Your task to perform on an android device: turn on translation in the chrome app Image 0: 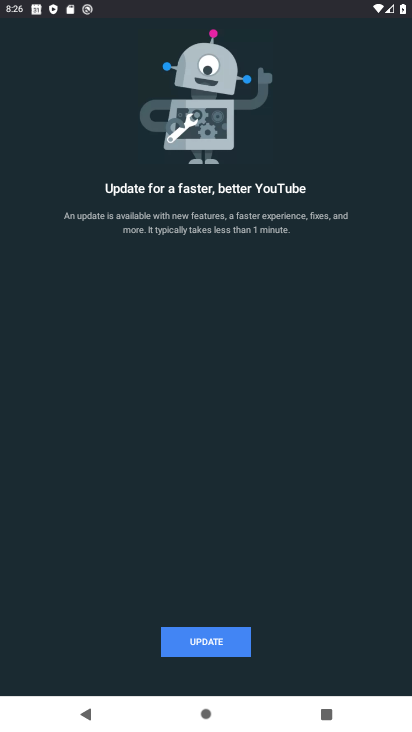
Step 0: press home button
Your task to perform on an android device: turn on translation in the chrome app Image 1: 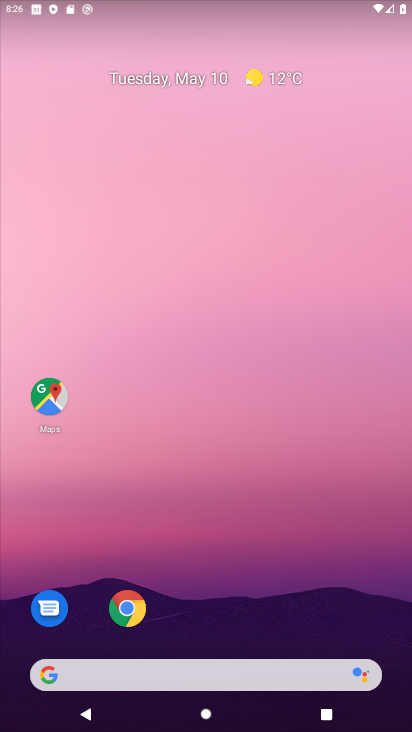
Step 1: drag from (241, 664) to (331, 362)
Your task to perform on an android device: turn on translation in the chrome app Image 2: 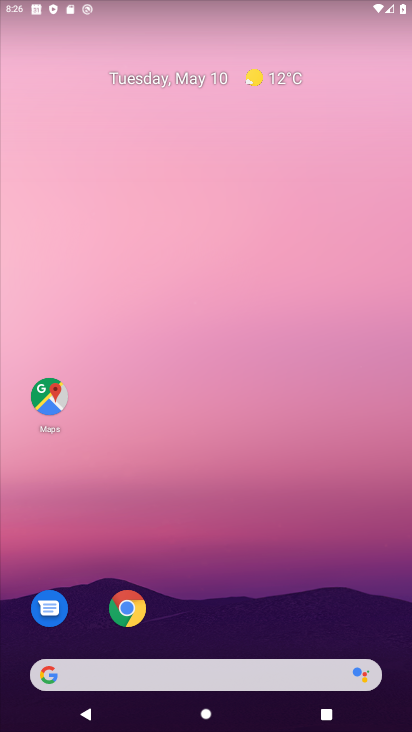
Step 2: drag from (269, 674) to (256, 256)
Your task to perform on an android device: turn on translation in the chrome app Image 3: 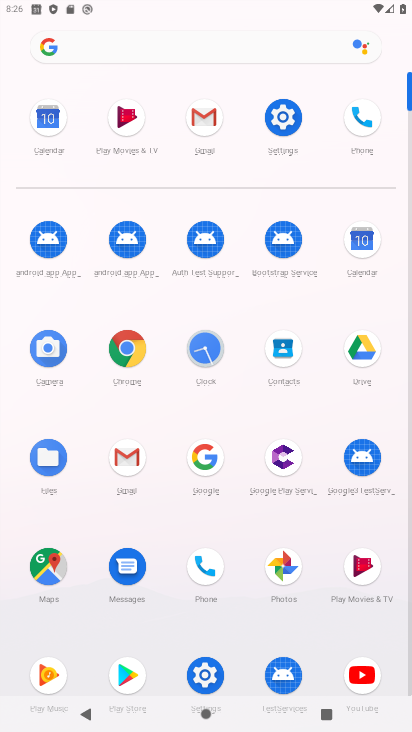
Step 3: click (147, 340)
Your task to perform on an android device: turn on translation in the chrome app Image 4: 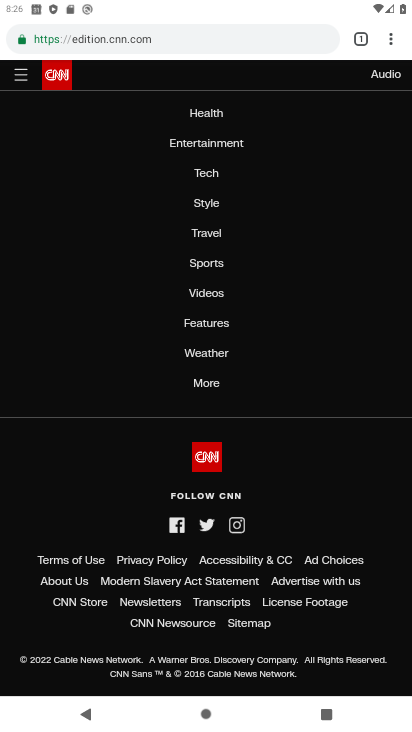
Step 4: drag from (384, 34) to (277, 432)
Your task to perform on an android device: turn on translation in the chrome app Image 5: 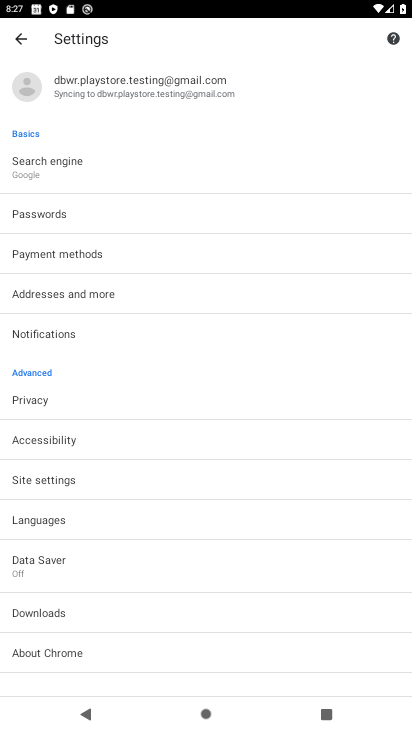
Step 5: click (102, 524)
Your task to perform on an android device: turn on translation in the chrome app Image 6: 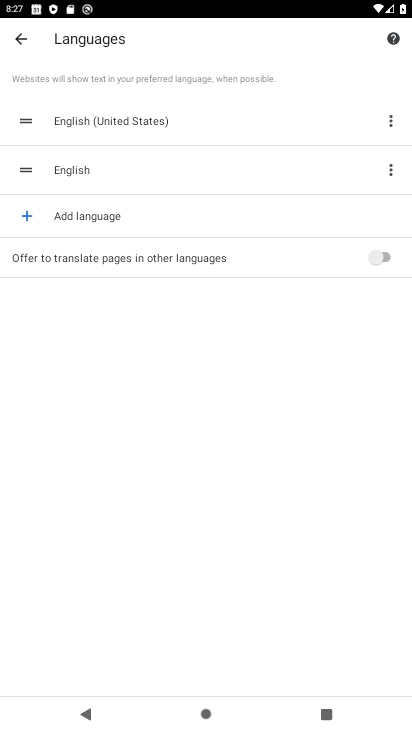
Step 6: click (377, 263)
Your task to perform on an android device: turn on translation in the chrome app Image 7: 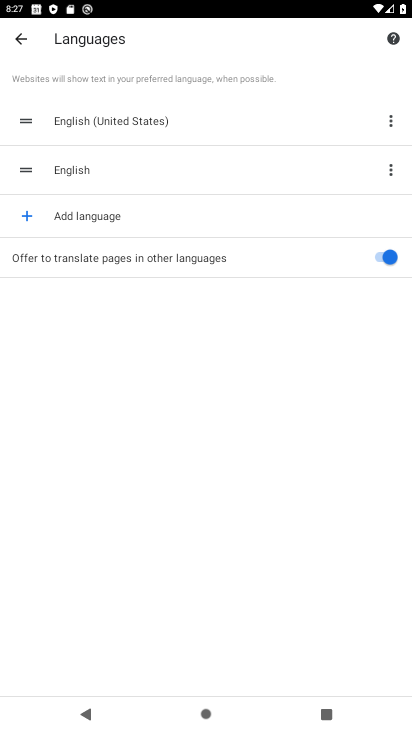
Step 7: press home button
Your task to perform on an android device: turn on translation in the chrome app Image 8: 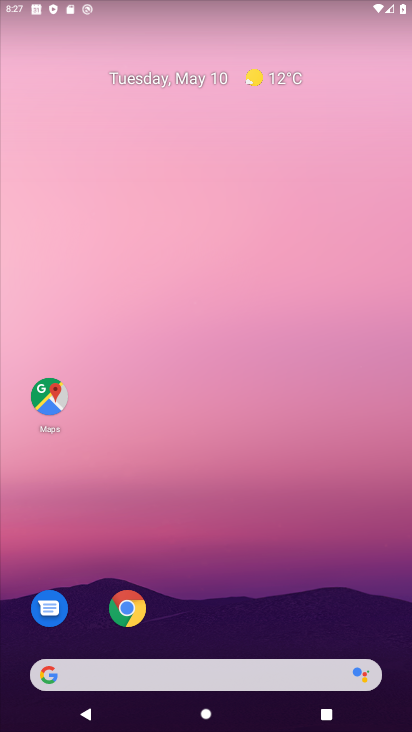
Step 8: click (135, 627)
Your task to perform on an android device: turn on translation in the chrome app Image 9: 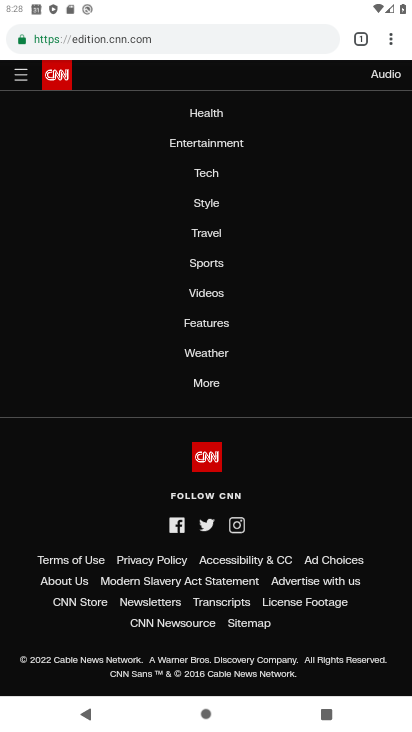
Step 9: click (389, 48)
Your task to perform on an android device: turn on translation in the chrome app Image 10: 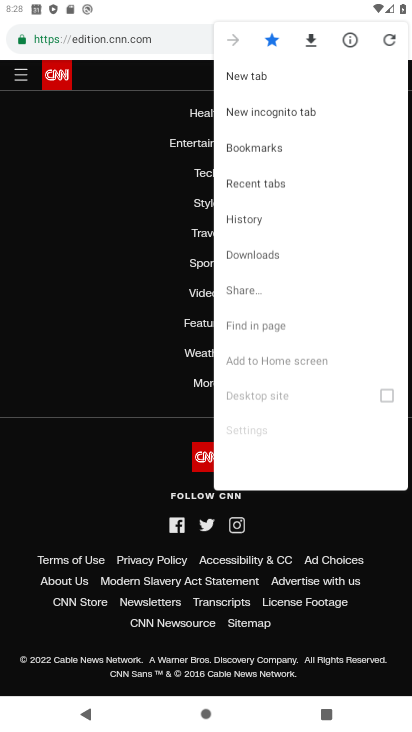
Step 10: click (389, 48)
Your task to perform on an android device: turn on translation in the chrome app Image 11: 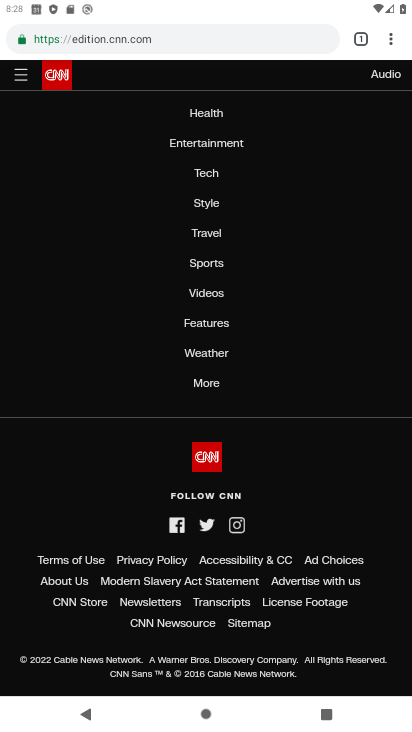
Step 11: drag from (389, 32) to (264, 436)
Your task to perform on an android device: turn on translation in the chrome app Image 12: 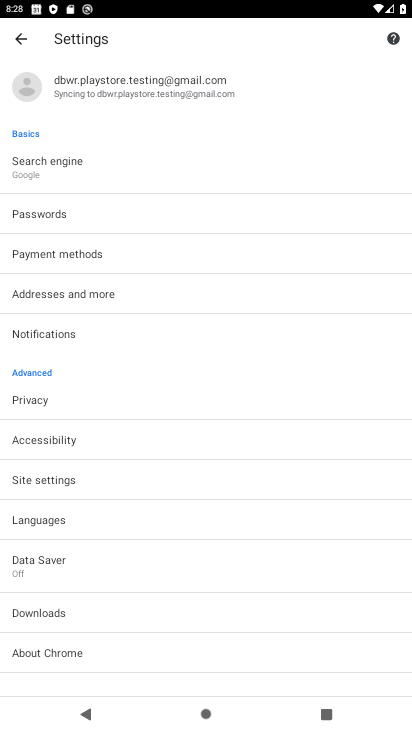
Step 12: click (60, 522)
Your task to perform on an android device: turn on translation in the chrome app Image 13: 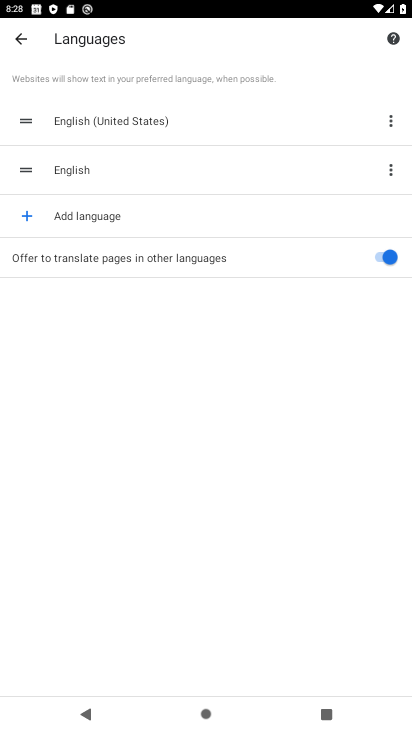
Step 13: task complete